Your task to perform on an android device: Show me productivity apps on the Play Store Image 0: 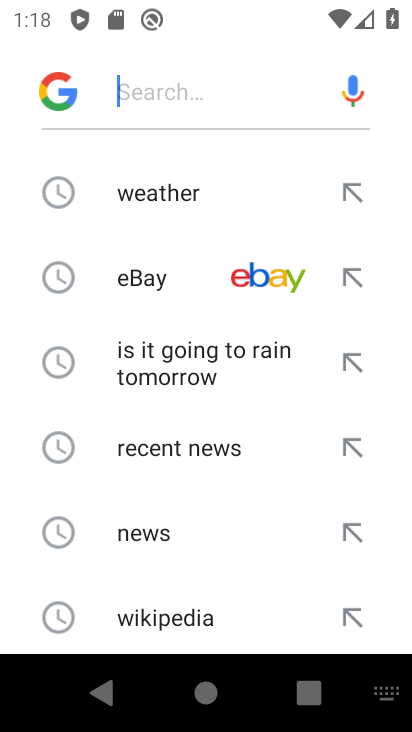
Step 0: press back button
Your task to perform on an android device: Show me productivity apps on the Play Store Image 1: 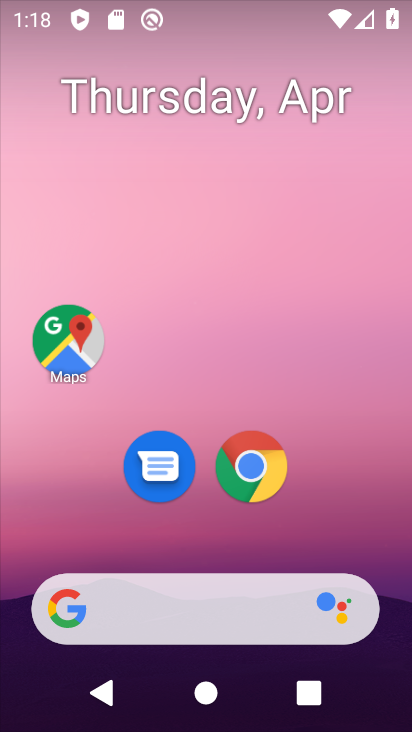
Step 1: drag from (319, 427) to (278, 21)
Your task to perform on an android device: Show me productivity apps on the Play Store Image 2: 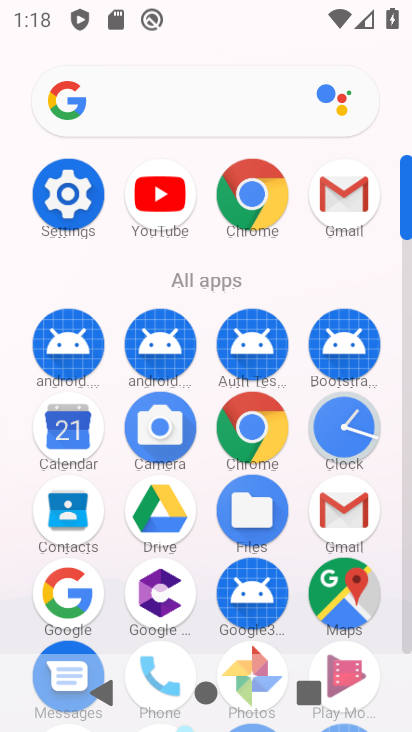
Step 2: drag from (5, 598) to (14, 321)
Your task to perform on an android device: Show me productivity apps on the Play Store Image 3: 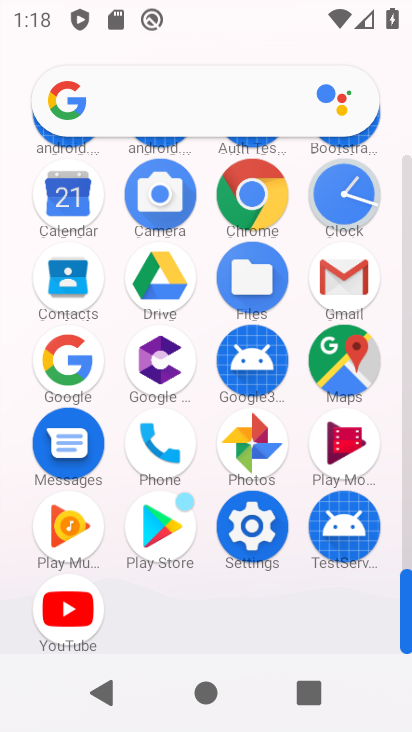
Step 3: drag from (12, 570) to (12, 339)
Your task to perform on an android device: Show me productivity apps on the Play Store Image 4: 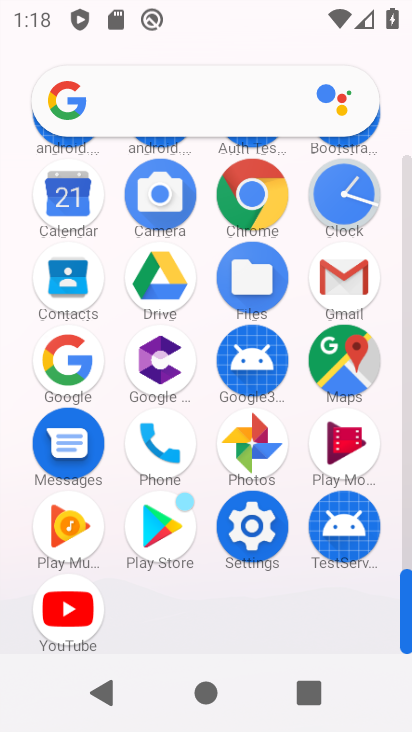
Step 4: click (157, 524)
Your task to perform on an android device: Show me productivity apps on the Play Store Image 5: 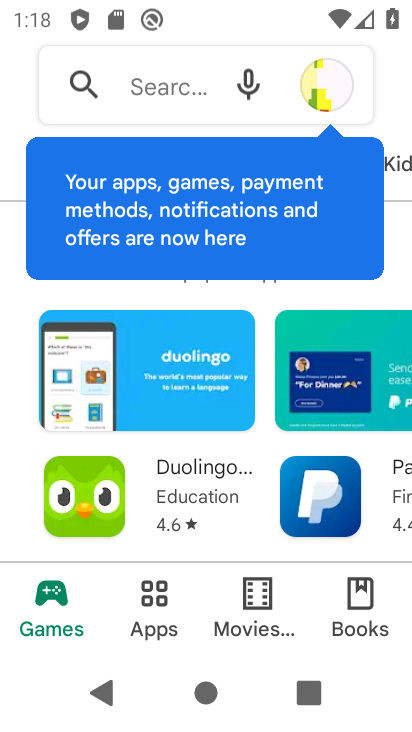
Step 5: drag from (26, 319) to (19, 491)
Your task to perform on an android device: Show me productivity apps on the Play Store Image 6: 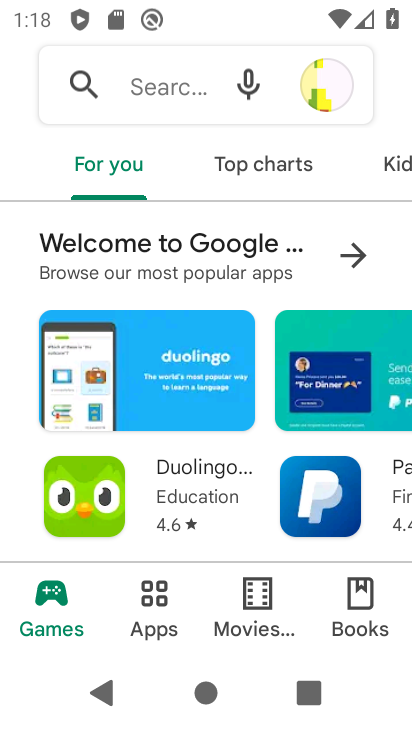
Step 6: click (240, 158)
Your task to perform on an android device: Show me productivity apps on the Play Store Image 7: 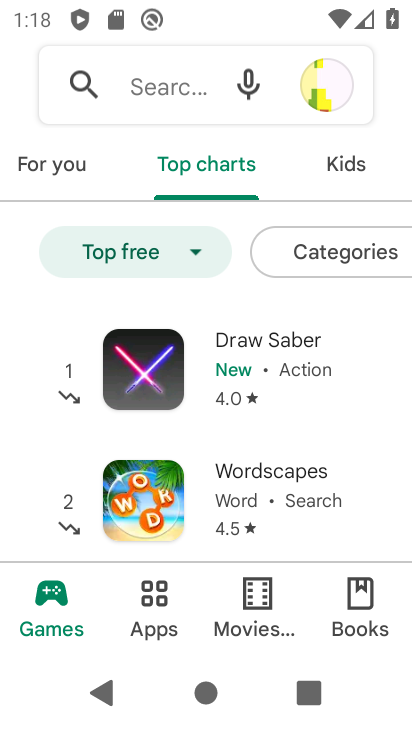
Step 7: drag from (359, 167) to (87, 159)
Your task to perform on an android device: Show me productivity apps on the Play Store Image 8: 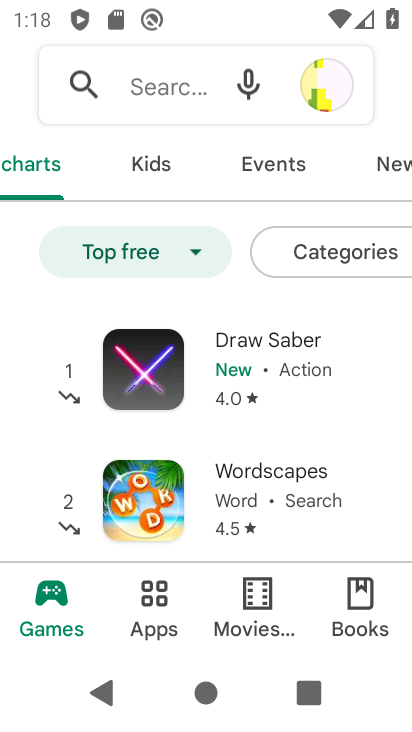
Step 8: drag from (364, 172) to (38, 171)
Your task to perform on an android device: Show me productivity apps on the Play Store Image 9: 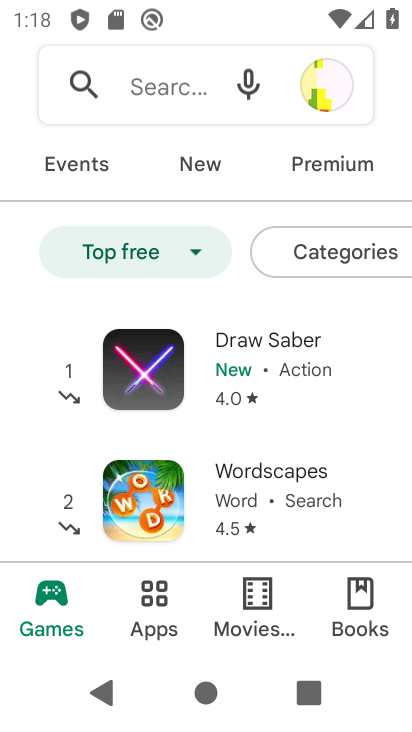
Step 9: drag from (328, 155) to (65, 153)
Your task to perform on an android device: Show me productivity apps on the Play Store Image 10: 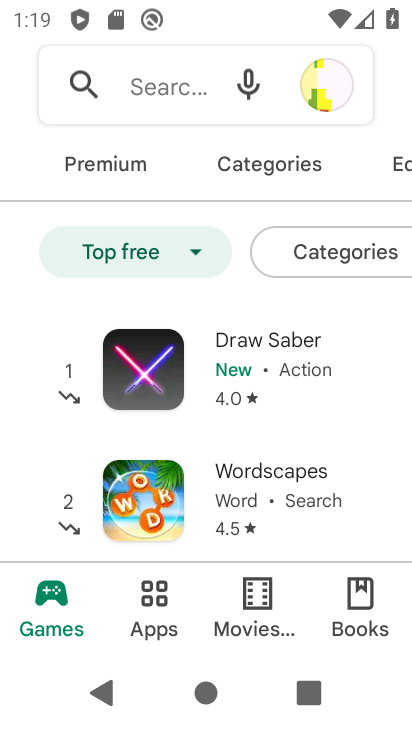
Step 10: drag from (333, 163) to (122, 167)
Your task to perform on an android device: Show me productivity apps on the Play Store Image 11: 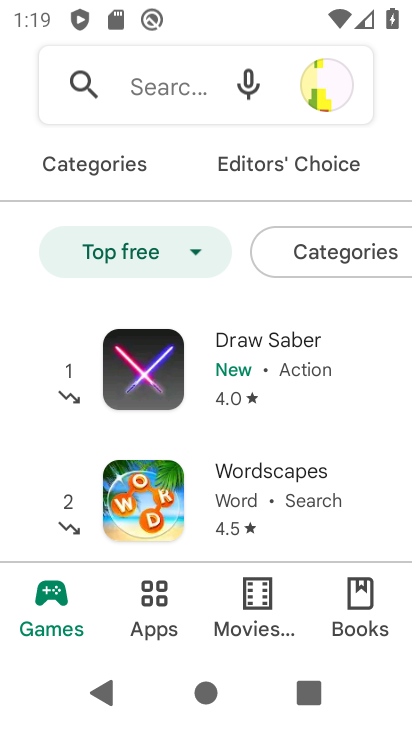
Step 11: drag from (355, 245) to (75, 244)
Your task to perform on an android device: Show me productivity apps on the Play Store Image 12: 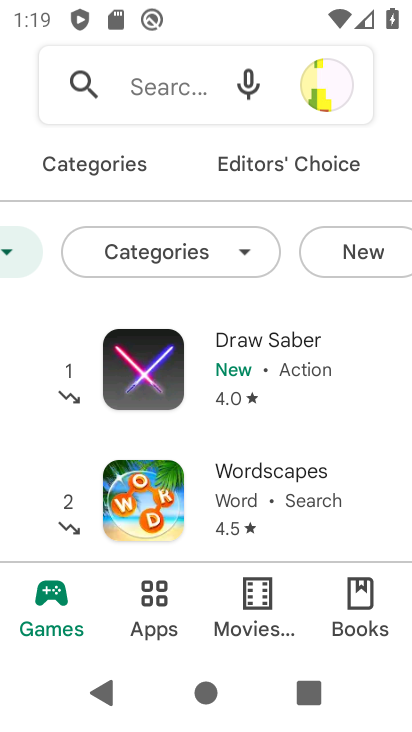
Step 12: click (215, 253)
Your task to perform on an android device: Show me productivity apps on the Play Store Image 13: 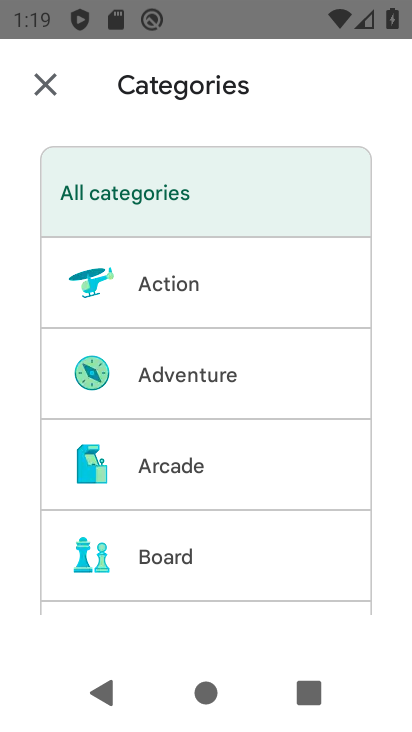
Step 13: drag from (251, 499) to (257, 228)
Your task to perform on an android device: Show me productivity apps on the Play Store Image 14: 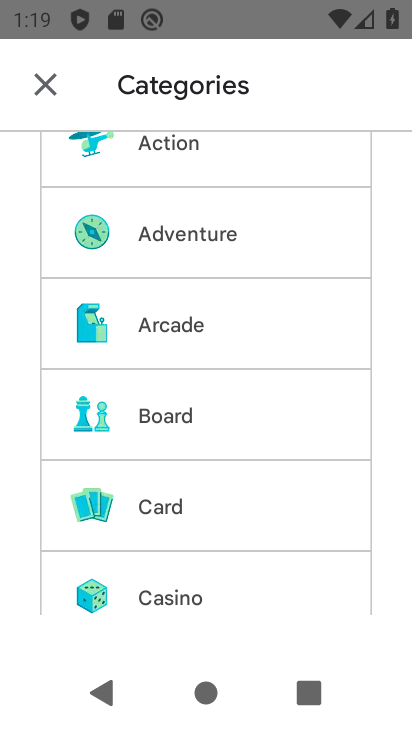
Step 14: drag from (259, 465) to (259, 188)
Your task to perform on an android device: Show me productivity apps on the Play Store Image 15: 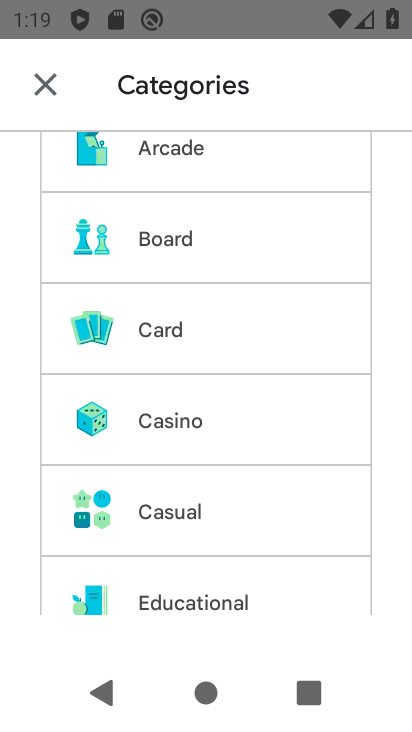
Step 15: drag from (259, 540) to (257, 198)
Your task to perform on an android device: Show me productivity apps on the Play Store Image 16: 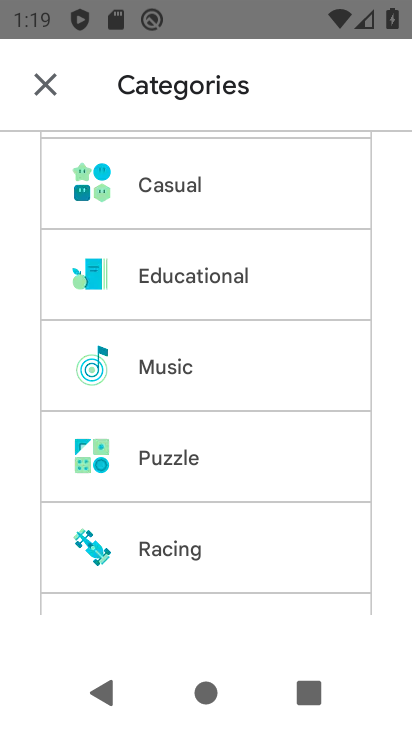
Step 16: drag from (241, 527) to (257, 172)
Your task to perform on an android device: Show me productivity apps on the Play Store Image 17: 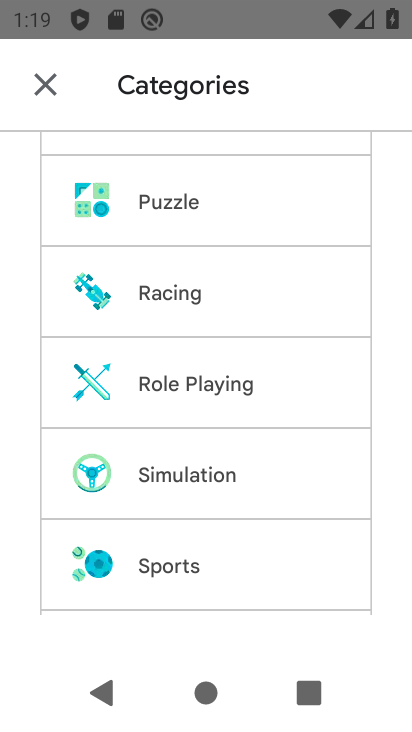
Step 17: drag from (252, 523) to (261, 183)
Your task to perform on an android device: Show me productivity apps on the Play Store Image 18: 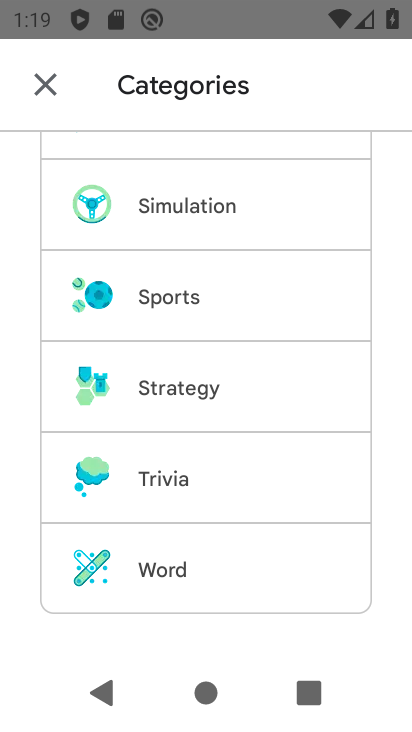
Step 18: drag from (254, 531) to (258, 203)
Your task to perform on an android device: Show me productivity apps on the Play Store Image 19: 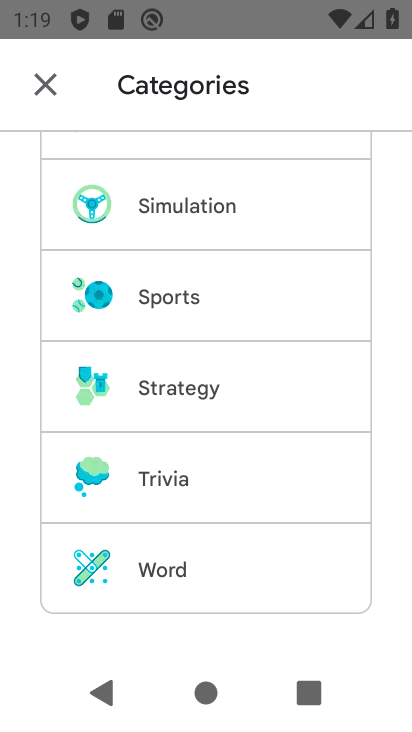
Step 19: click (30, 72)
Your task to perform on an android device: Show me productivity apps on the Play Store Image 20: 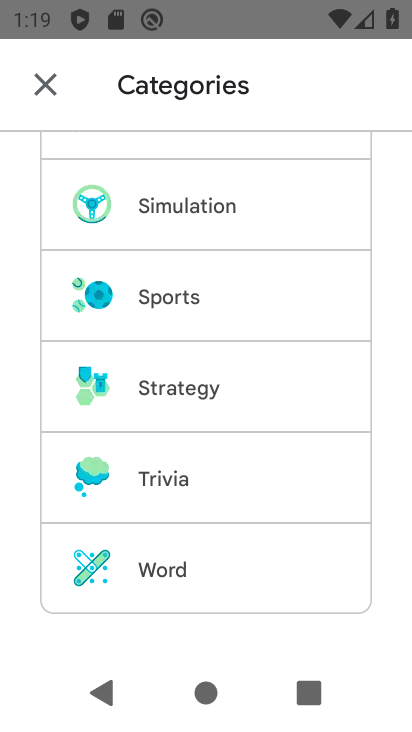
Step 20: click (33, 75)
Your task to perform on an android device: Show me productivity apps on the Play Store Image 21: 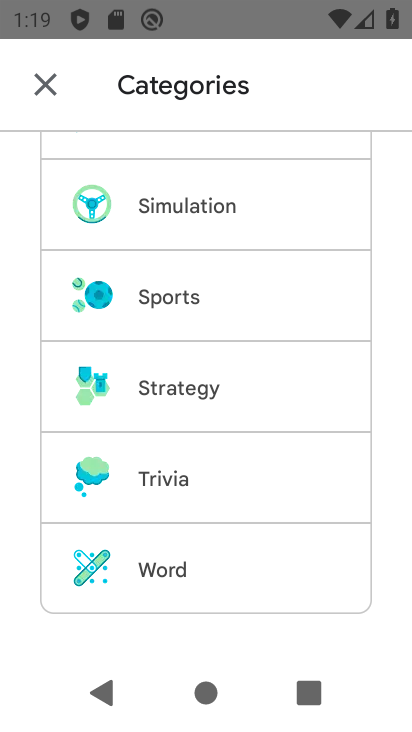
Step 21: click (33, 75)
Your task to perform on an android device: Show me productivity apps on the Play Store Image 22: 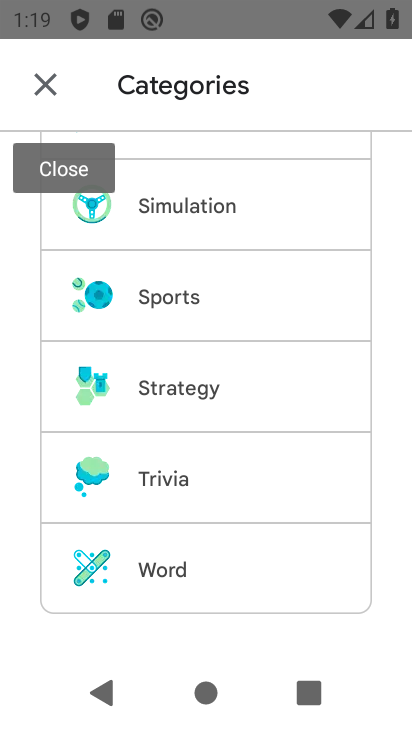
Step 22: click (46, 88)
Your task to perform on an android device: Show me productivity apps on the Play Store Image 23: 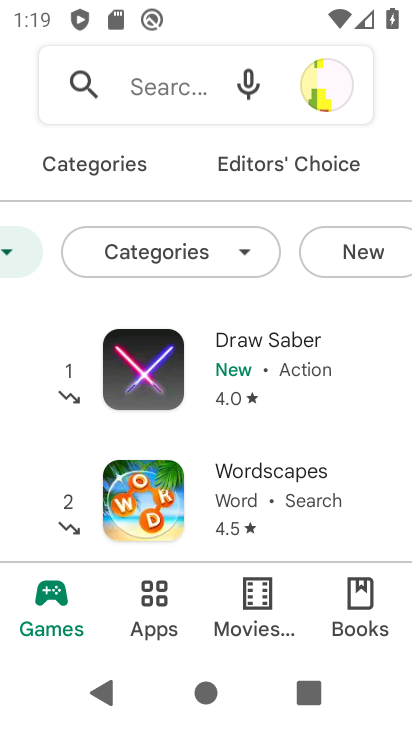
Step 23: drag from (63, 155) to (340, 153)
Your task to perform on an android device: Show me productivity apps on the Play Store Image 24: 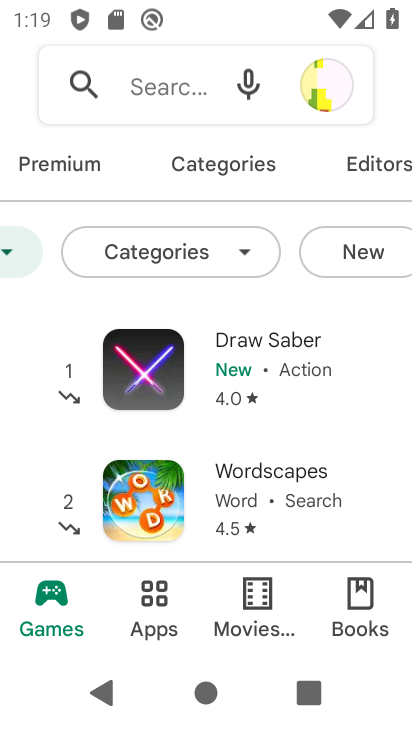
Step 24: drag from (168, 156) to (329, 156)
Your task to perform on an android device: Show me productivity apps on the Play Store Image 25: 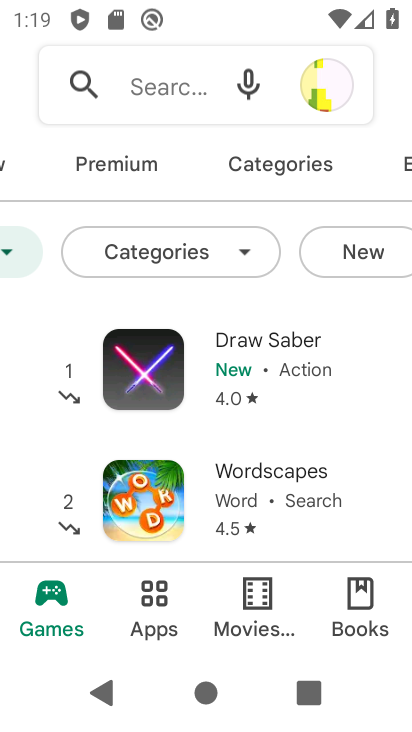
Step 25: drag from (75, 165) to (334, 161)
Your task to perform on an android device: Show me productivity apps on the Play Store Image 26: 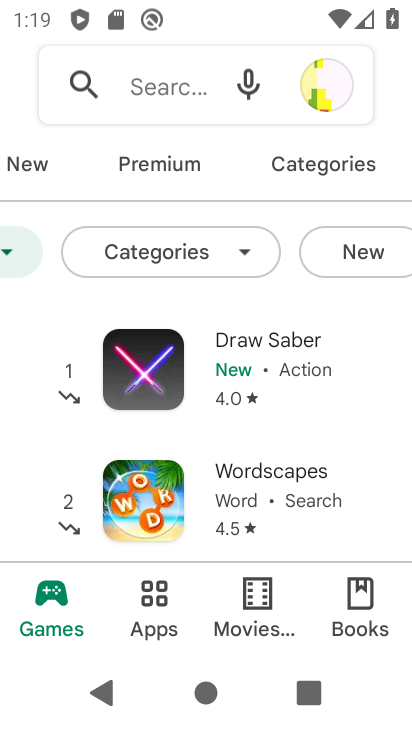
Step 26: drag from (53, 155) to (338, 149)
Your task to perform on an android device: Show me productivity apps on the Play Store Image 27: 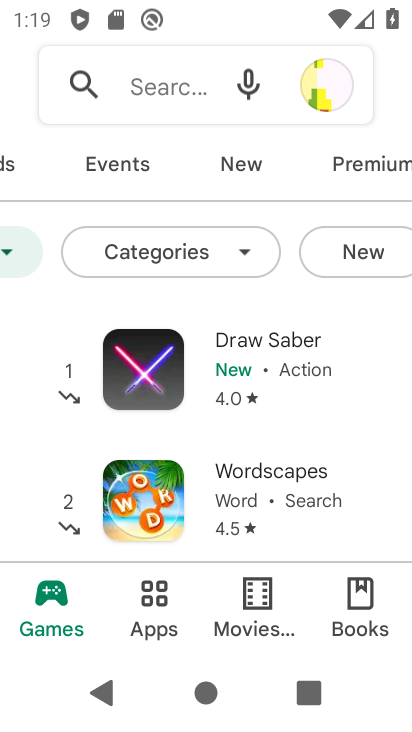
Step 27: click (153, 597)
Your task to perform on an android device: Show me productivity apps on the Play Store Image 28: 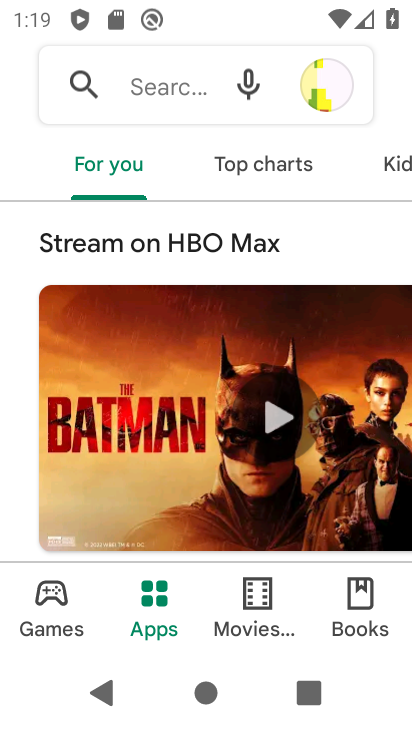
Step 28: drag from (347, 159) to (81, 162)
Your task to perform on an android device: Show me productivity apps on the Play Store Image 29: 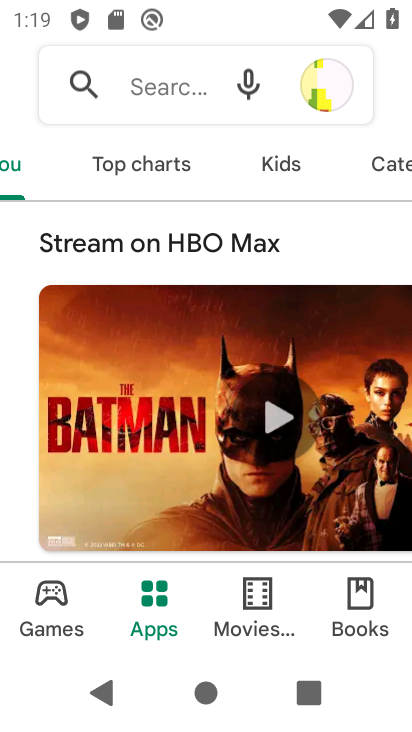
Step 29: drag from (309, 170) to (138, 168)
Your task to perform on an android device: Show me productivity apps on the Play Store Image 30: 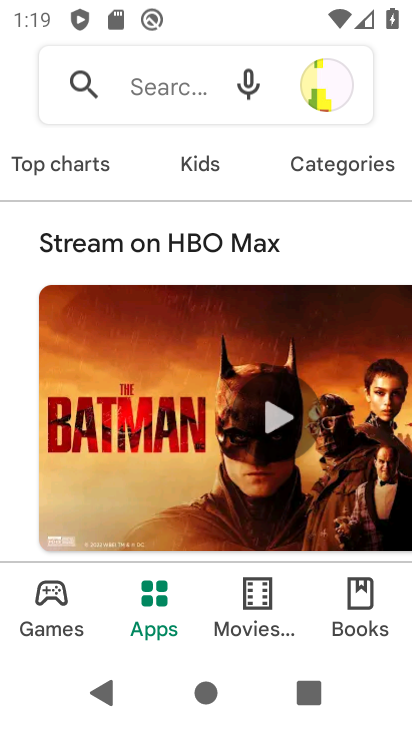
Step 30: click (355, 164)
Your task to perform on an android device: Show me productivity apps on the Play Store Image 31: 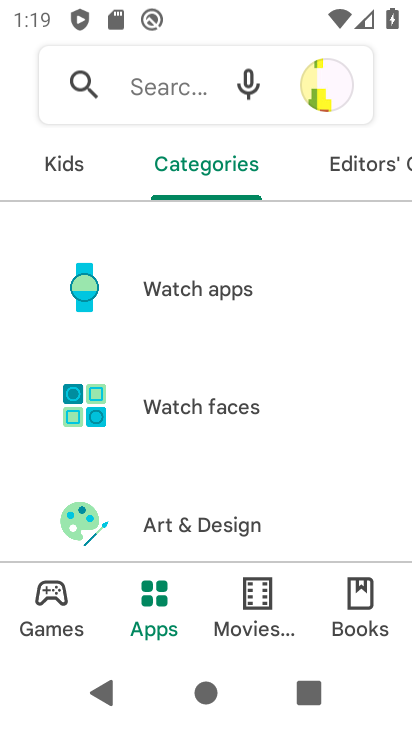
Step 31: drag from (281, 439) to (294, 125)
Your task to perform on an android device: Show me productivity apps on the Play Store Image 32: 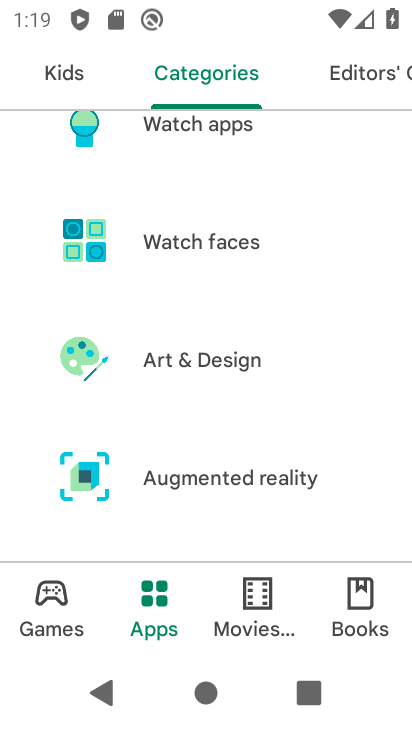
Step 32: drag from (310, 465) to (302, 136)
Your task to perform on an android device: Show me productivity apps on the Play Store Image 33: 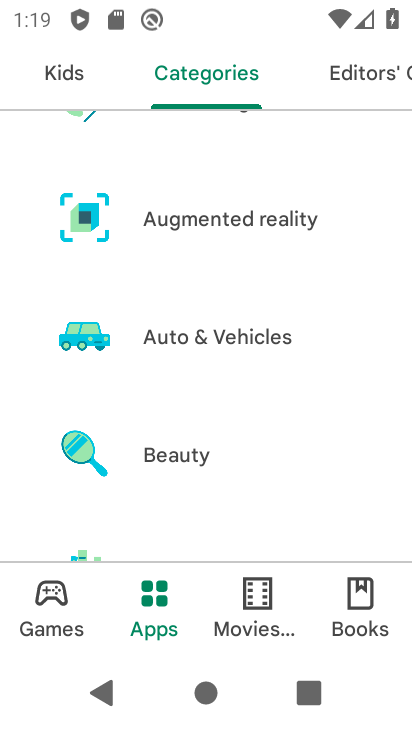
Step 33: drag from (331, 485) to (320, 146)
Your task to perform on an android device: Show me productivity apps on the Play Store Image 34: 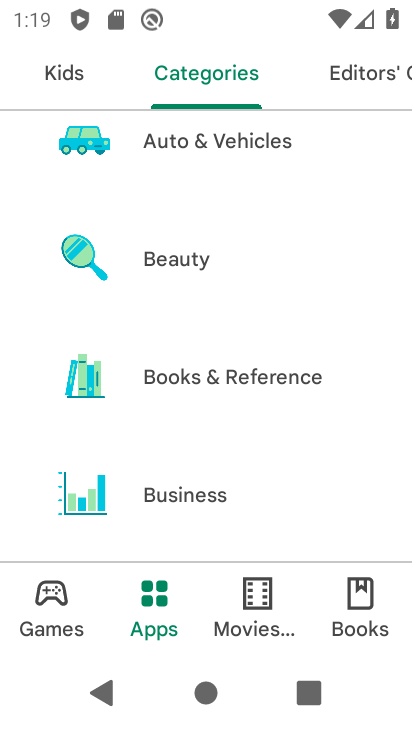
Step 34: drag from (308, 440) to (305, 158)
Your task to perform on an android device: Show me productivity apps on the Play Store Image 35: 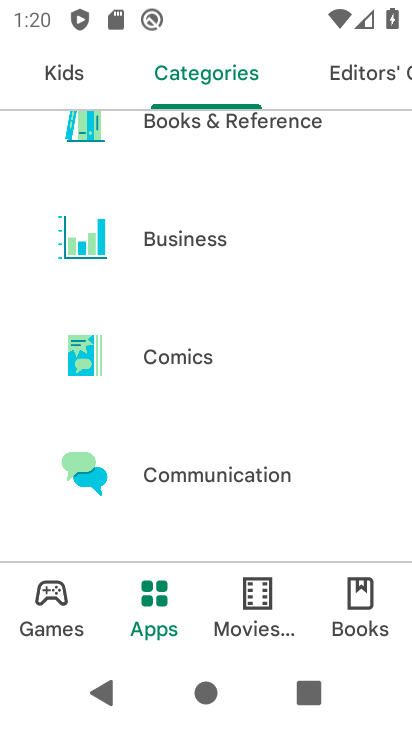
Step 35: drag from (320, 429) to (319, 138)
Your task to perform on an android device: Show me productivity apps on the Play Store Image 36: 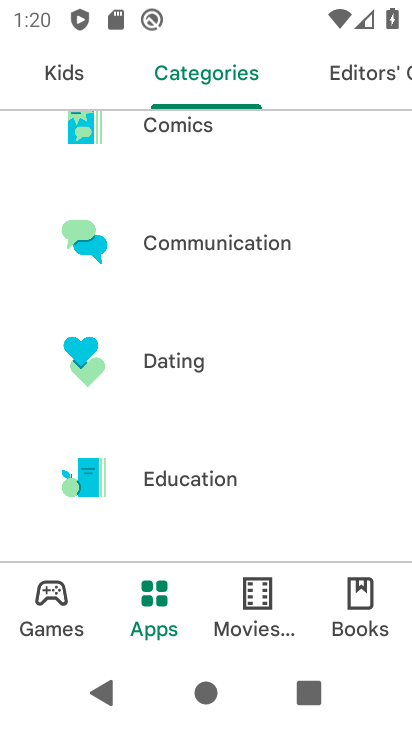
Step 36: drag from (314, 481) to (311, 170)
Your task to perform on an android device: Show me productivity apps on the Play Store Image 37: 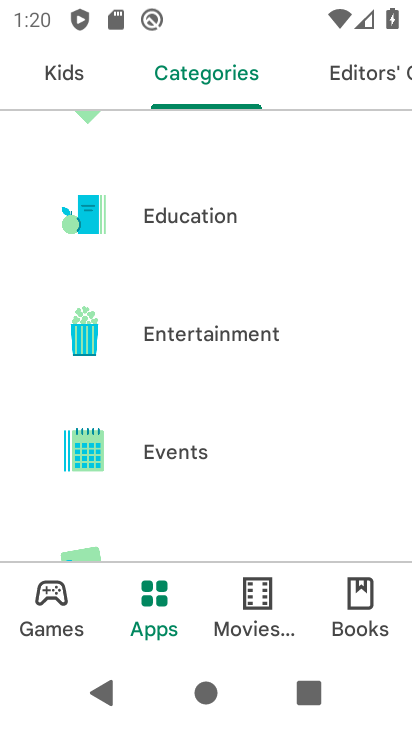
Step 37: drag from (293, 472) to (295, 144)
Your task to perform on an android device: Show me productivity apps on the Play Store Image 38: 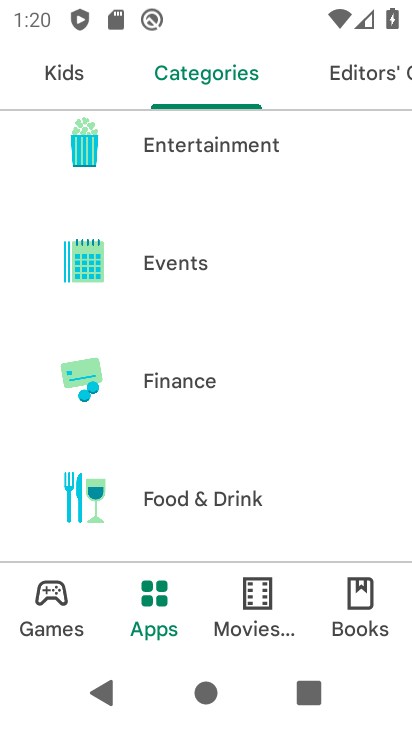
Step 38: drag from (295, 484) to (285, 129)
Your task to perform on an android device: Show me productivity apps on the Play Store Image 39: 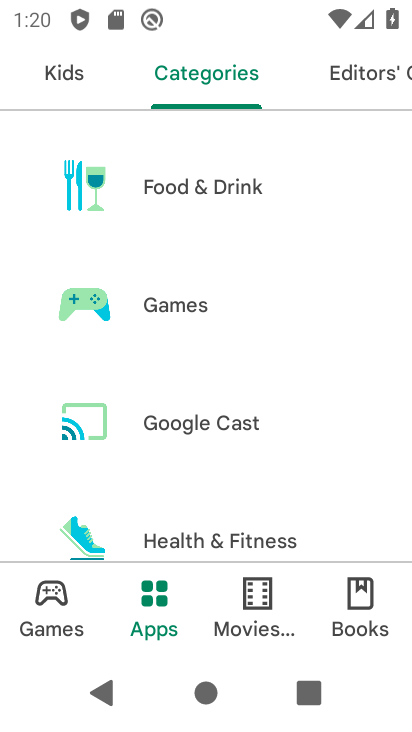
Step 39: drag from (299, 468) to (297, 148)
Your task to perform on an android device: Show me productivity apps on the Play Store Image 40: 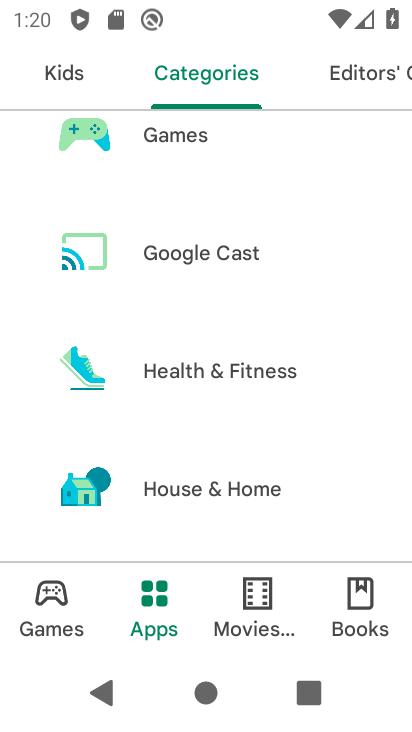
Step 40: drag from (319, 467) to (308, 132)
Your task to perform on an android device: Show me productivity apps on the Play Store Image 41: 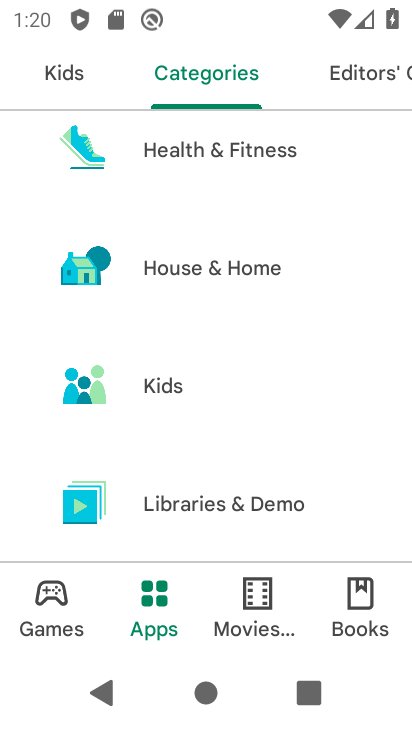
Step 41: drag from (320, 434) to (305, 173)
Your task to perform on an android device: Show me productivity apps on the Play Store Image 42: 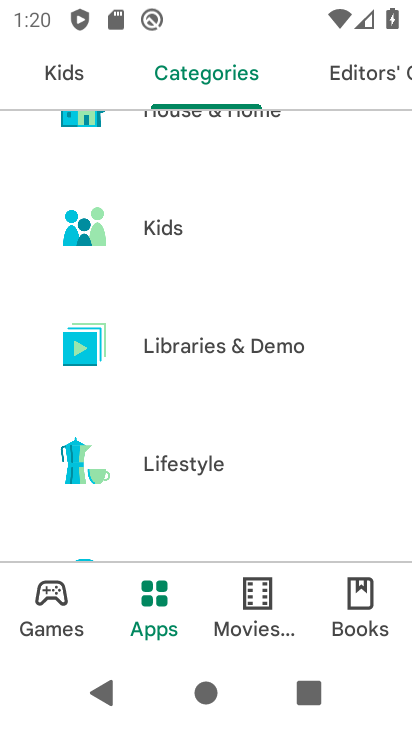
Step 42: drag from (290, 447) to (283, 169)
Your task to perform on an android device: Show me productivity apps on the Play Store Image 43: 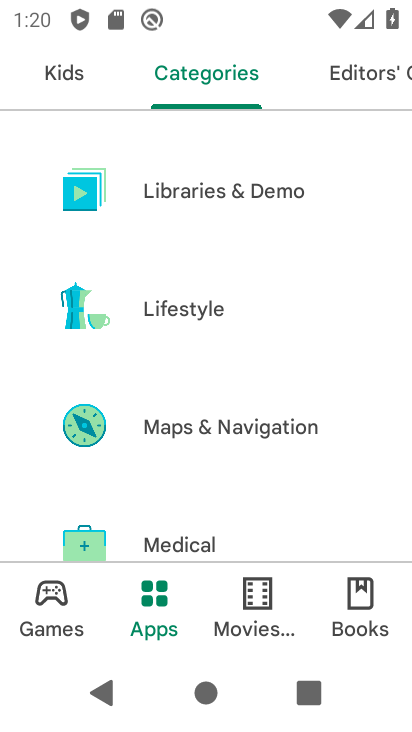
Step 43: drag from (306, 503) to (300, 163)
Your task to perform on an android device: Show me productivity apps on the Play Store Image 44: 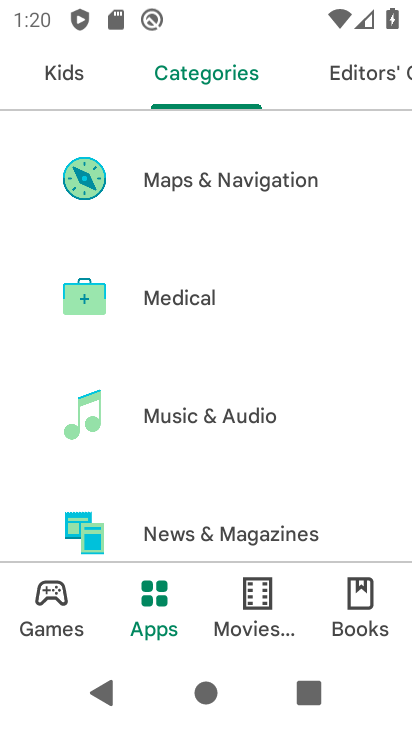
Step 44: drag from (303, 495) to (310, 206)
Your task to perform on an android device: Show me productivity apps on the Play Store Image 45: 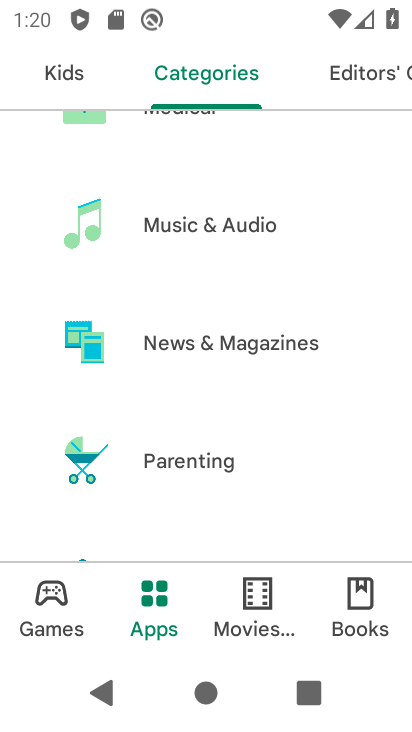
Step 45: drag from (326, 428) to (320, 158)
Your task to perform on an android device: Show me productivity apps on the Play Store Image 46: 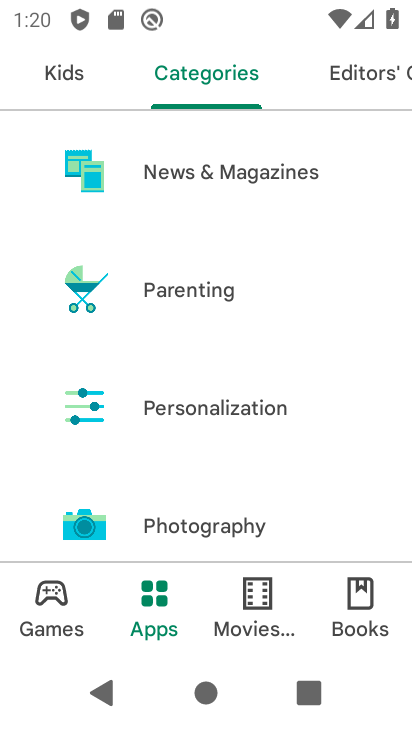
Step 46: drag from (318, 479) to (314, 124)
Your task to perform on an android device: Show me productivity apps on the Play Store Image 47: 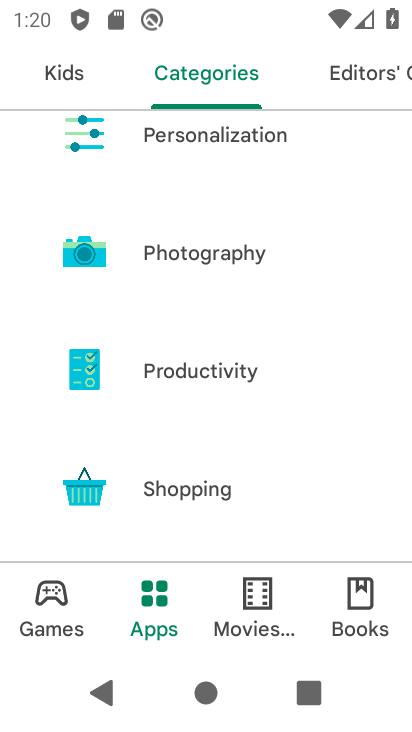
Step 47: click (223, 362)
Your task to perform on an android device: Show me productivity apps on the Play Store Image 48: 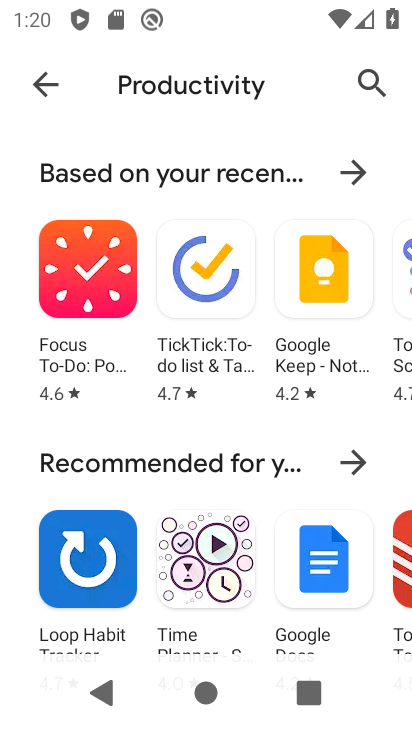
Step 48: drag from (395, 266) to (94, 253)
Your task to perform on an android device: Show me productivity apps on the Play Store Image 49: 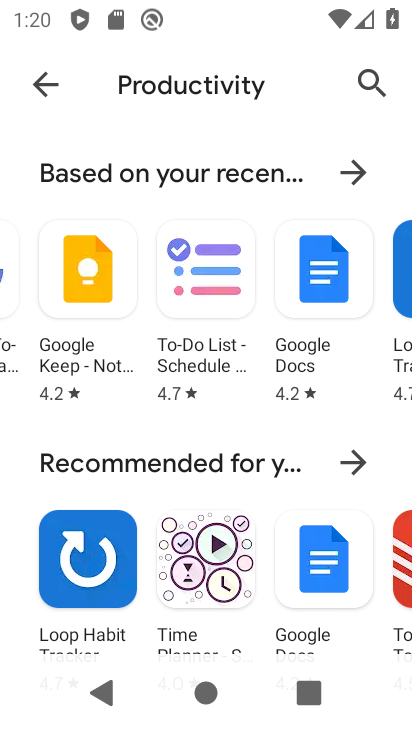
Step 49: drag from (350, 274) to (198, 270)
Your task to perform on an android device: Show me productivity apps on the Play Store Image 50: 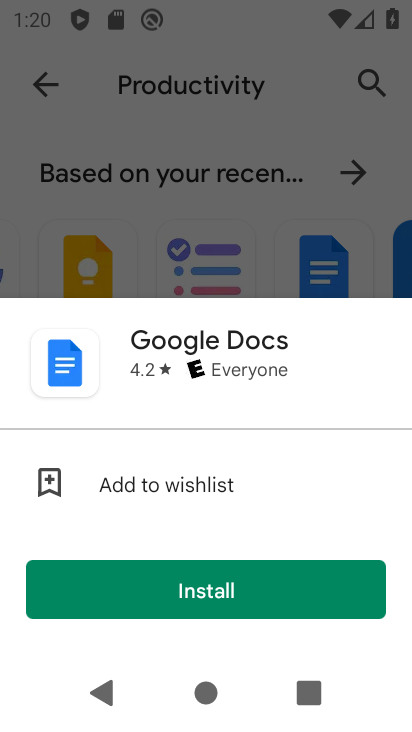
Step 50: click (236, 143)
Your task to perform on an android device: Show me productivity apps on the Play Store Image 51: 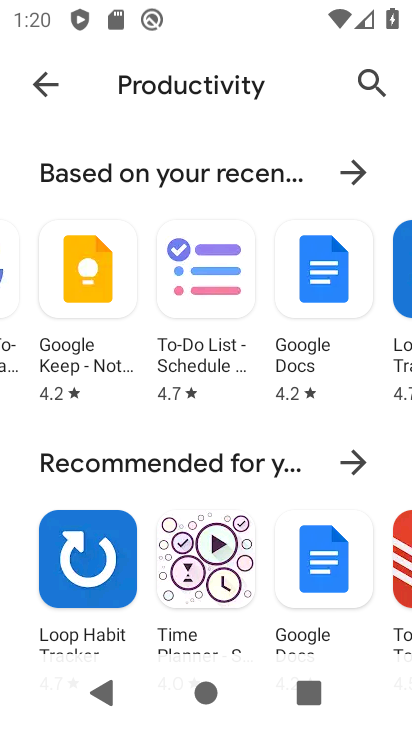
Step 51: task complete